Your task to perform on an android device: Open CNN.com Image 0: 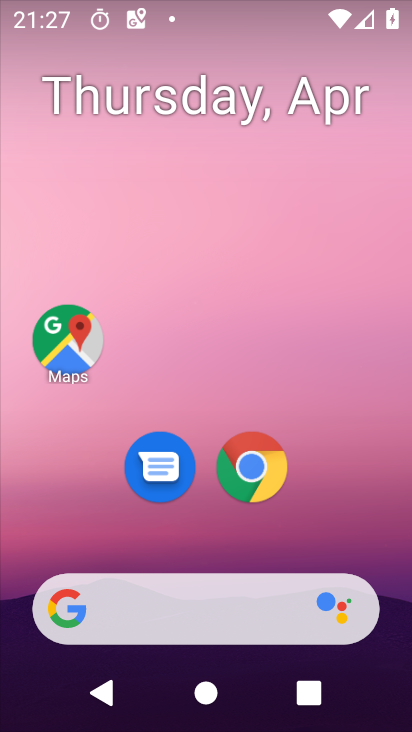
Step 0: drag from (195, 552) to (267, 5)
Your task to perform on an android device: Open CNN.com Image 1: 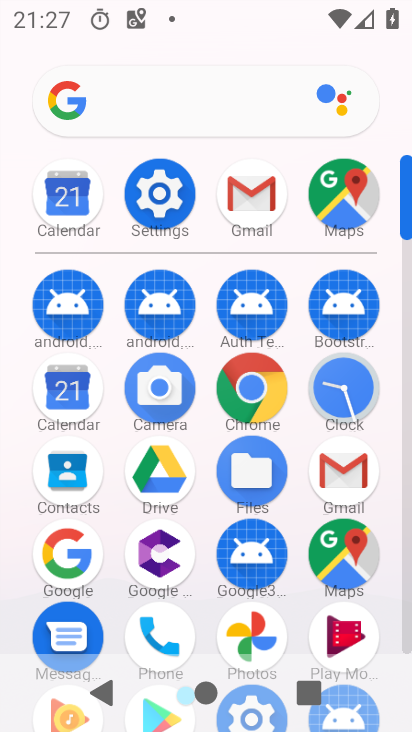
Step 1: click (249, 374)
Your task to perform on an android device: Open CNN.com Image 2: 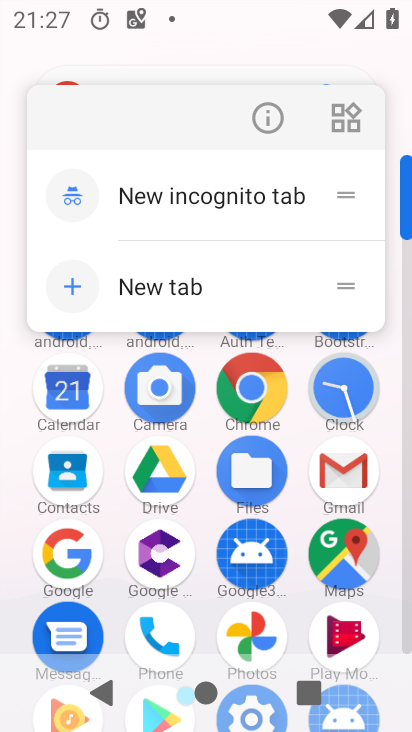
Step 2: click (260, 390)
Your task to perform on an android device: Open CNN.com Image 3: 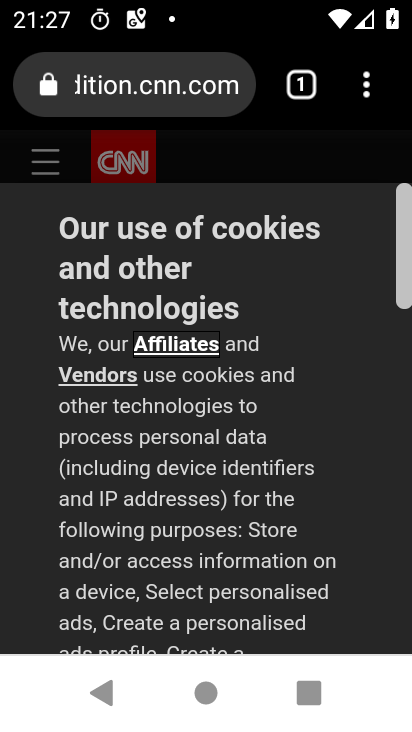
Step 3: task complete